Your task to perform on an android device: check data usage Image 0: 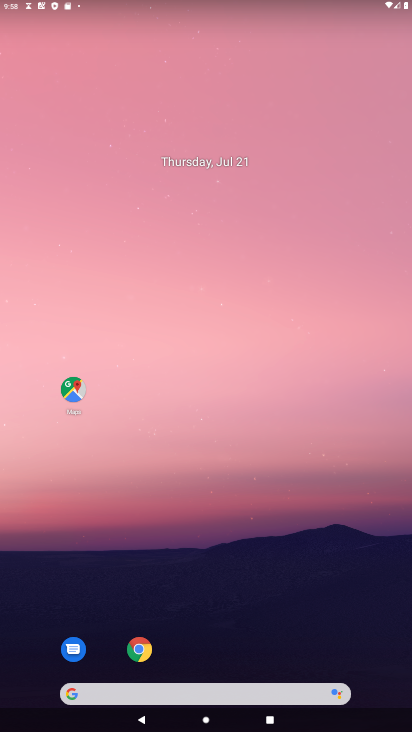
Step 0: drag from (241, 601) to (236, 145)
Your task to perform on an android device: check data usage Image 1: 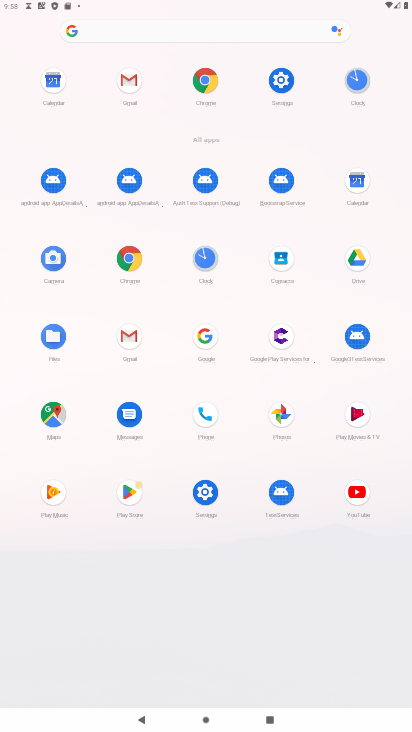
Step 1: click (286, 88)
Your task to perform on an android device: check data usage Image 2: 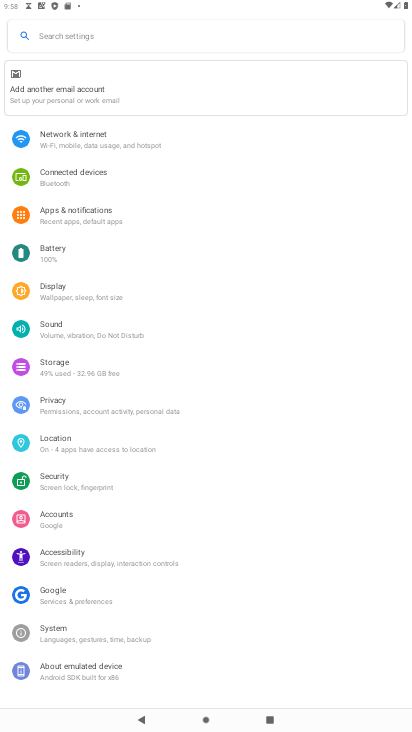
Step 2: click (117, 140)
Your task to perform on an android device: check data usage Image 3: 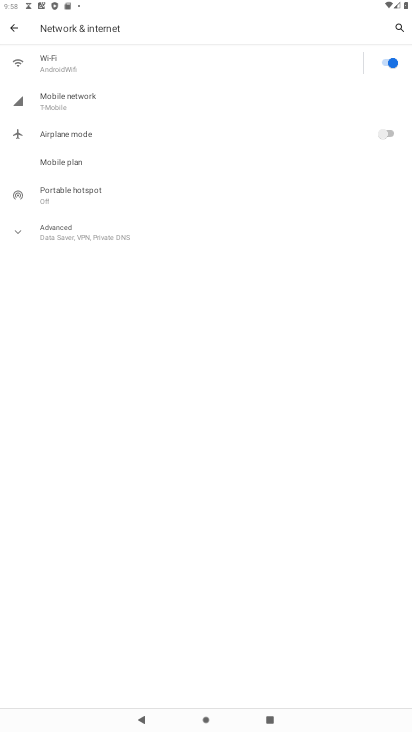
Step 3: click (93, 99)
Your task to perform on an android device: check data usage Image 4: 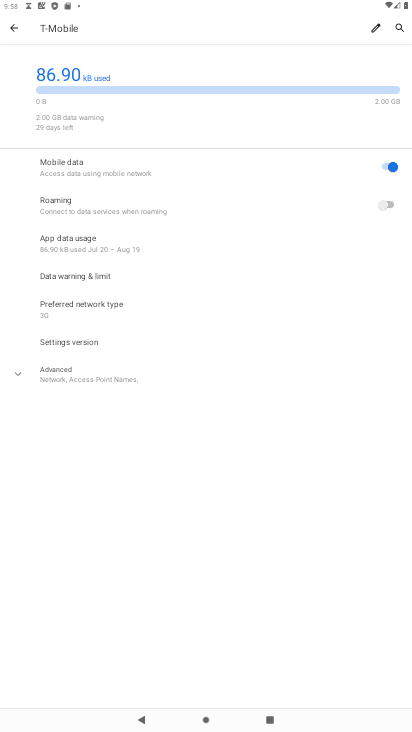
Step 4: task complete